Your task to perform on an android device: Check the weather Image 0: 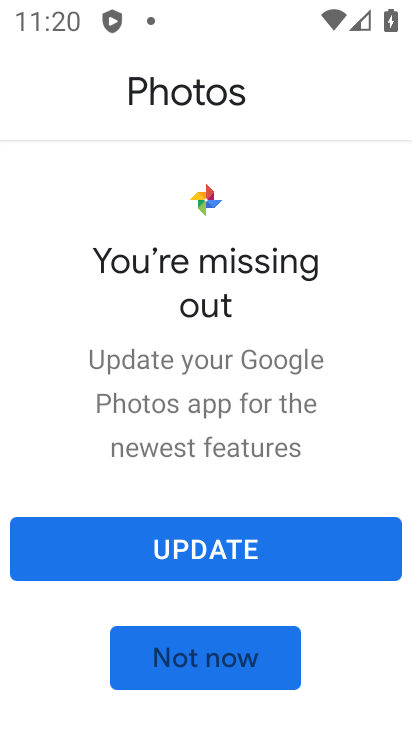
Step 0: click (188, 662)
Your task to perform on an android device: Check the weather Image 1: 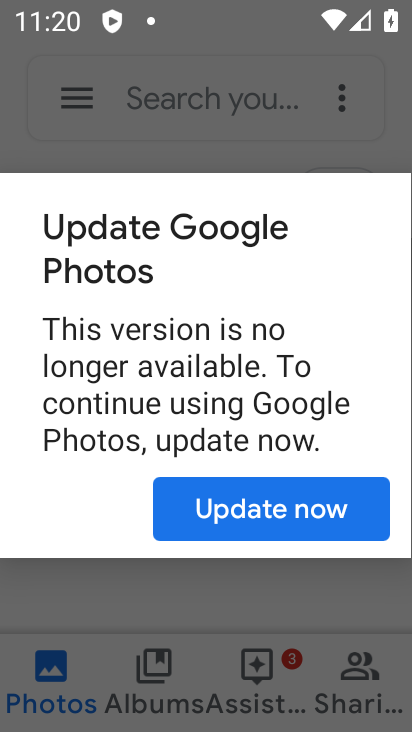
Step 1: press home button
Your task to perform on an android device: Check the weather Image 2: 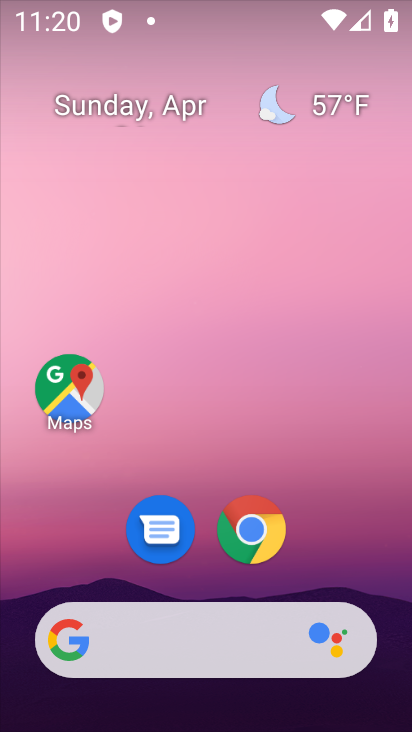
Step 2: click (326, 100)
Your task to perform on an android device: Check the weather Image 3: 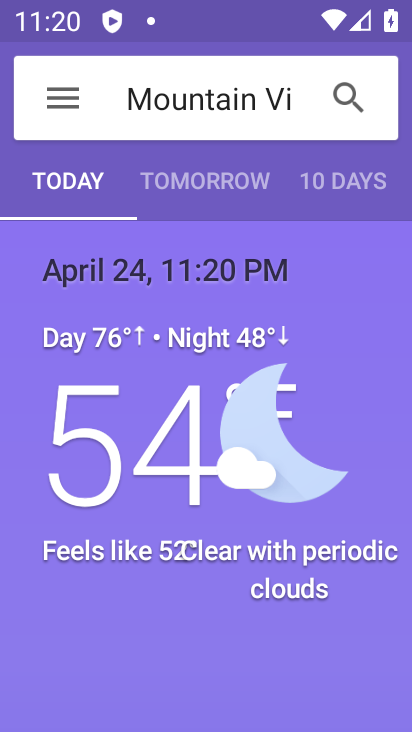
Step 3: task complete